Your task to perform on an android device: turn on bluetooth scan Image 0: 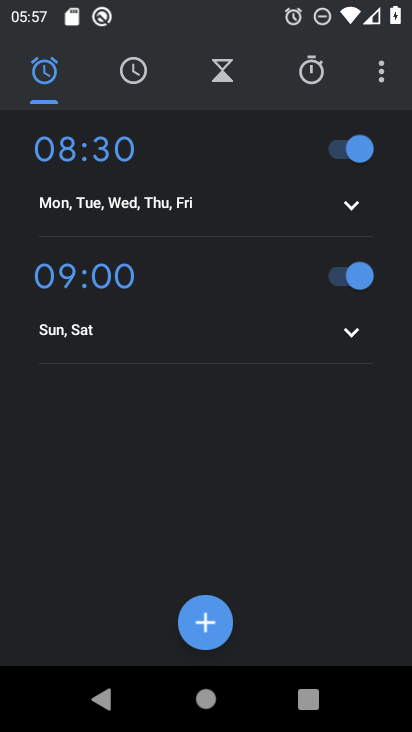
Step 0: press home button
Your task to perform on an android device: turn on bluetooth scan Image 1: 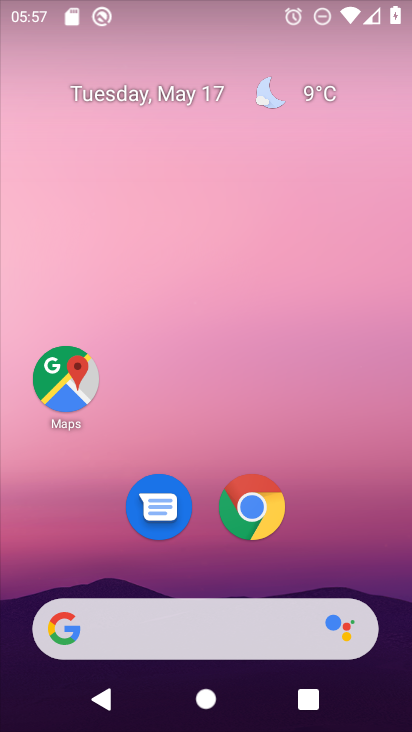
Step 1: drag from (332, 489) to (190, 38)
Your task to perform on an android device: turn on bluetooth scan Image 2: 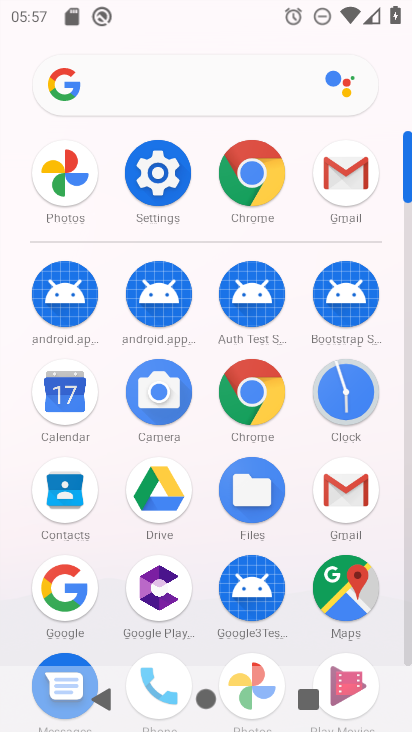
Step 2: click (173, 193)
Your task to perform on an android device: turn on bluetooth scan Image 3: 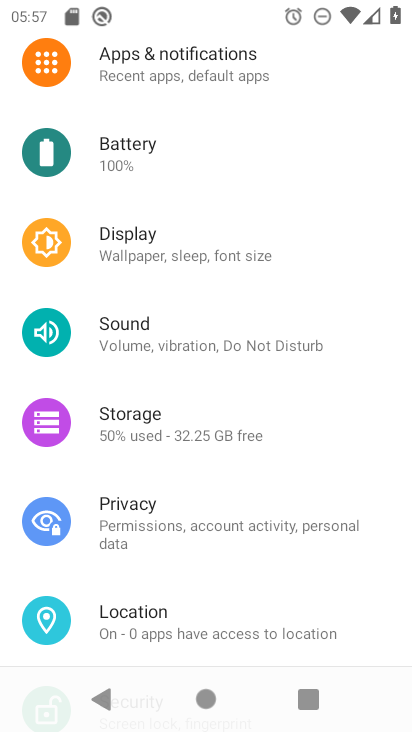
Step 3: click (180, 610)
Your task to perform on an android device: turn on bluetooth scan Image 4: 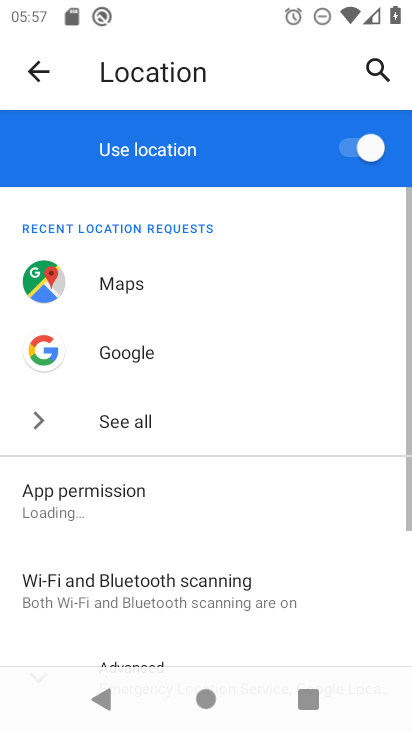
Step 4: click (268, 587)
Your task to perform on an android device: turn on bluetooth scan Image 5: 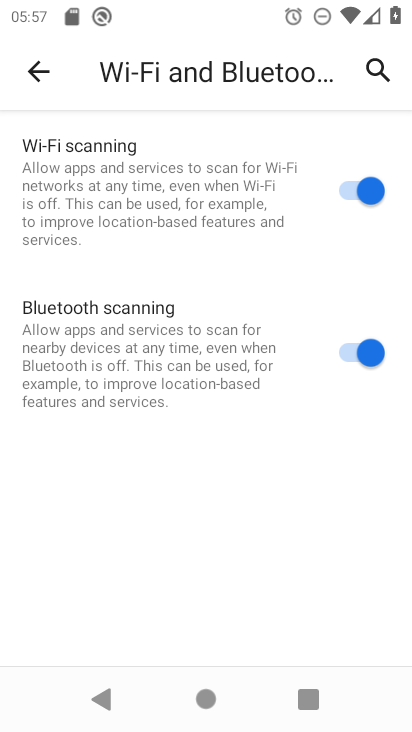
Step 5: task complete